Your task to perform on an android device: check out phone information Image 0: 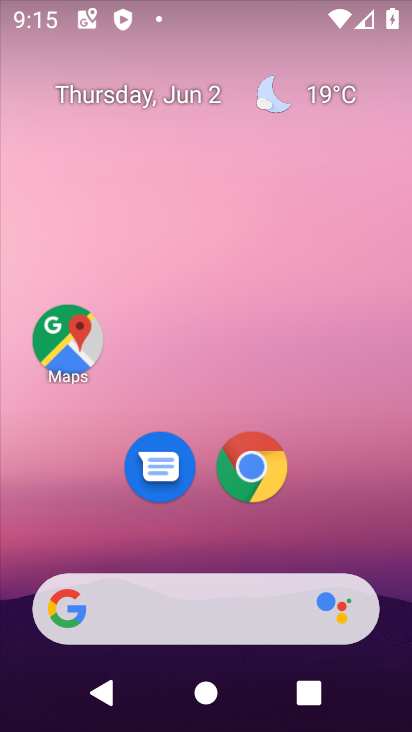
Step 0: drag from (192, 536) to (208, 170)
Your task to perform on an android device: check out phone information Image 1: 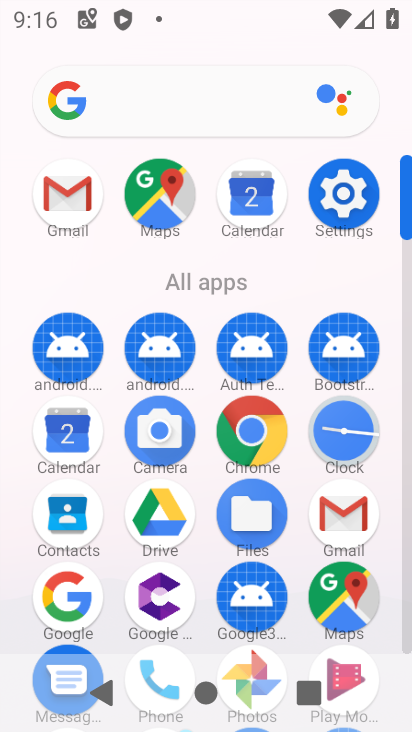
Step 1: press home button
Your task to perform on an android device: check out phone information Image 2: 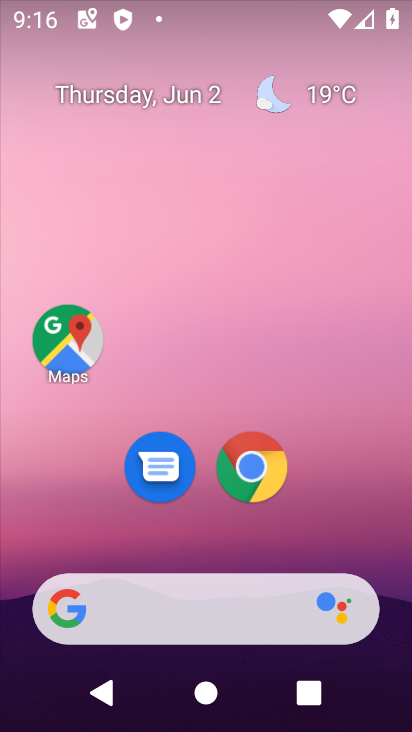
Step 2: drag from (230, 539) to (244, 231)
Your task to perform on an android device: check out phone information Image 3: 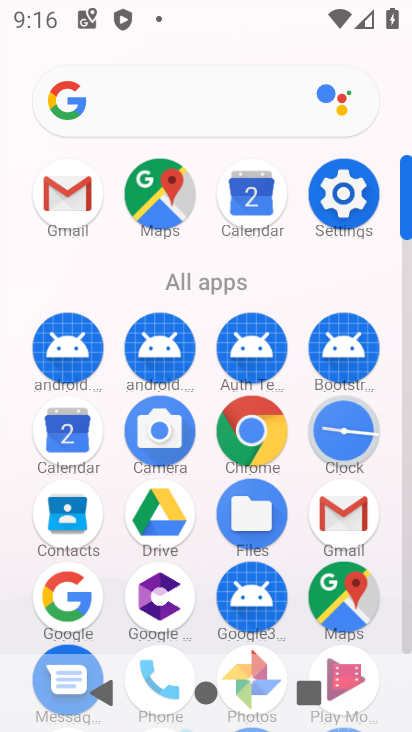
Step 3: click (329, 225)
Your task to perform on an android device: check out phone information Image 4: 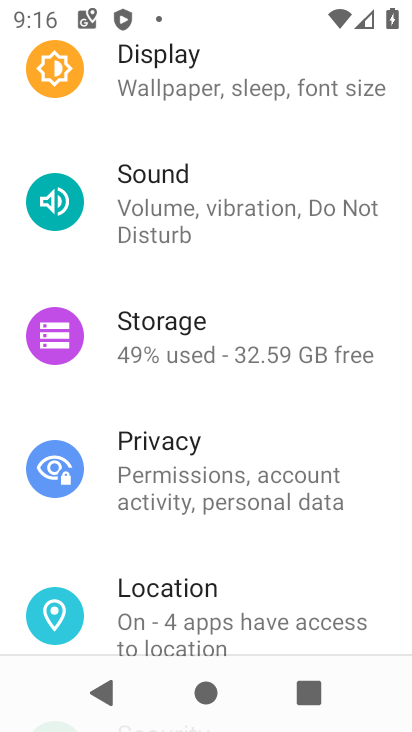
Step 4: drag from (244, 576) to (225, 215)
Your task to perform on an android device: check out phone information Image 5: 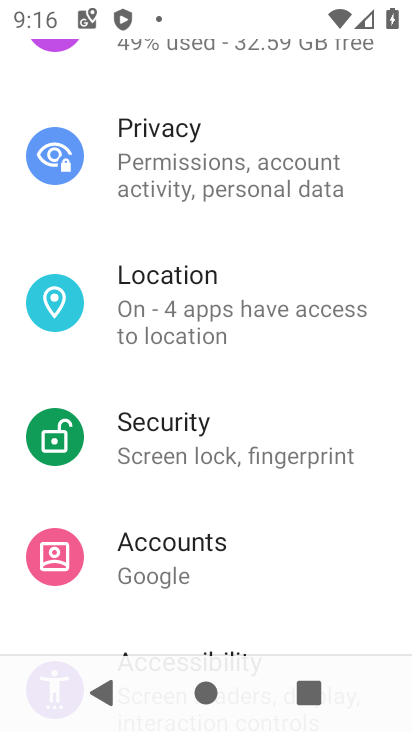
Step 5: drag from (221, 579) to (207, 378)
Your task to perform on an android device: check out phone information Image 6: 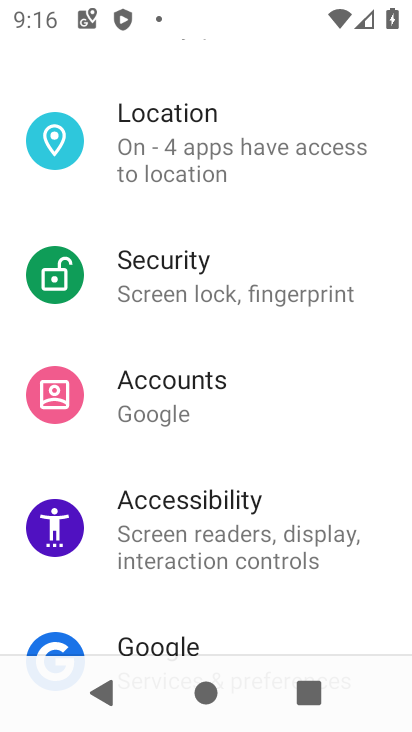
Step 6: drag from (198, 610) to (208, 303)
Your task to perform on an android device: check out phone information Image 7: 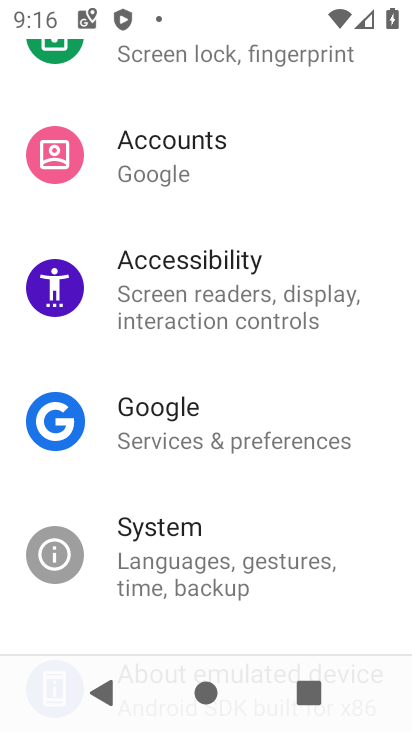
Step 7: drag from (183, 567) to (193, 276)
Your task to perform on an android device: check out phone information Image 8: 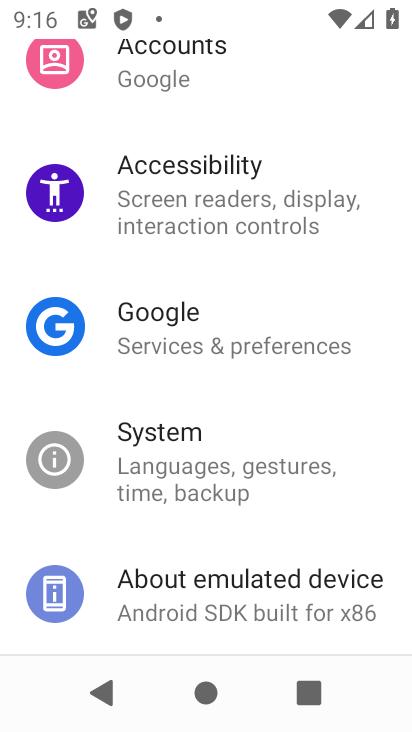
Step 8: click (204, 588)
Your task to perform on an android device: check out phone information Image 9: 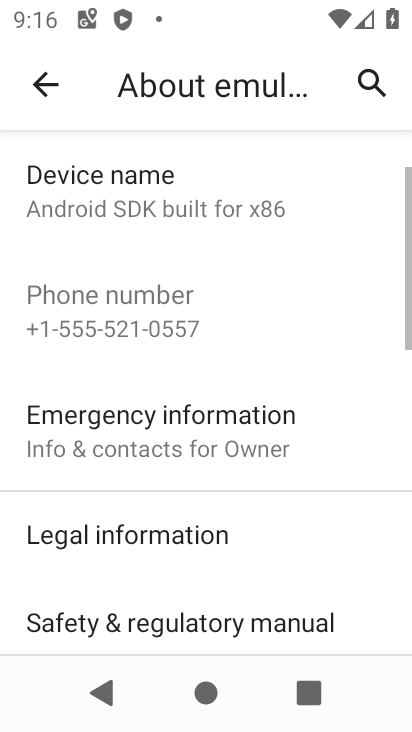
Step 9: task complete